Your task to perform on an android device: Open Yahoo.com Image 0: 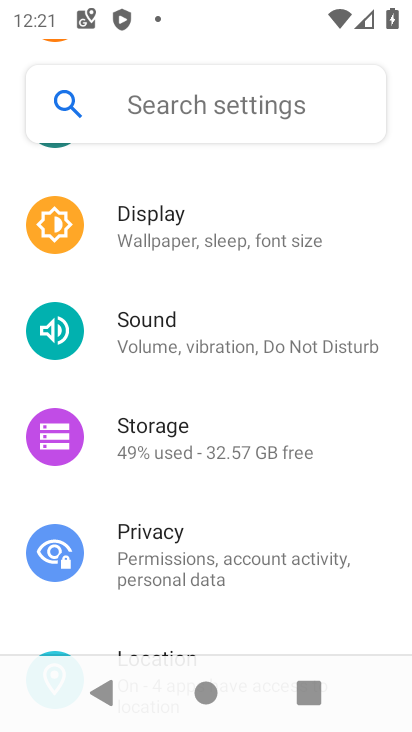
Step 0: press home button
Your task to perform on an android device: Open Yahoo.com Image 1: 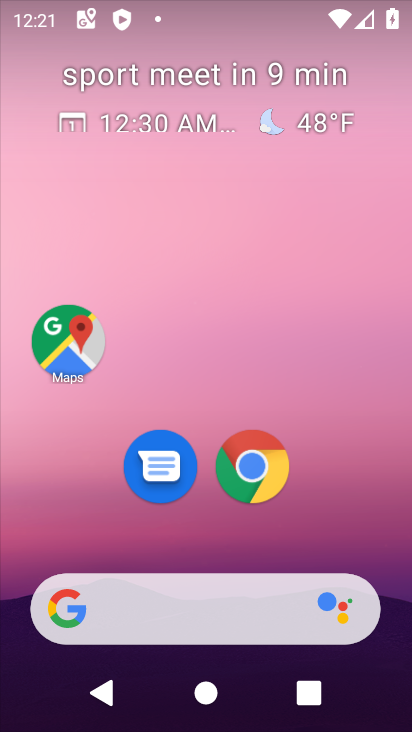
Step 1: click (256, 465)
Your task to perform on an android device: Open Yahoo.com Image 2: 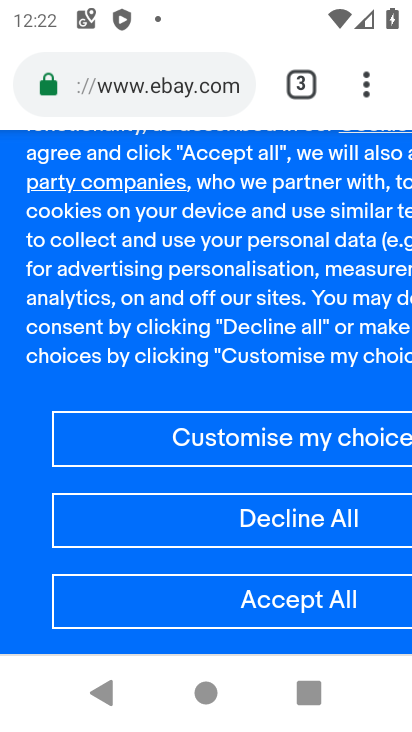
Step 2: click (212, 80)
Your task to perform on an android device: Open Yahoo.com Image 3: 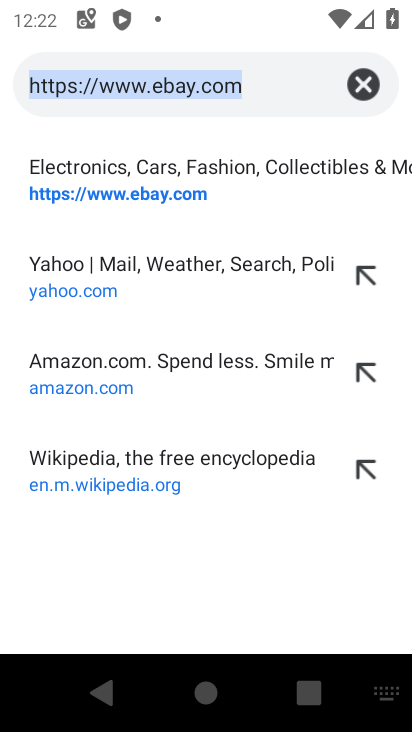
Step 3: click (359, 90)
Your task to perform on an android device: Open Yahoo.com Image 4: 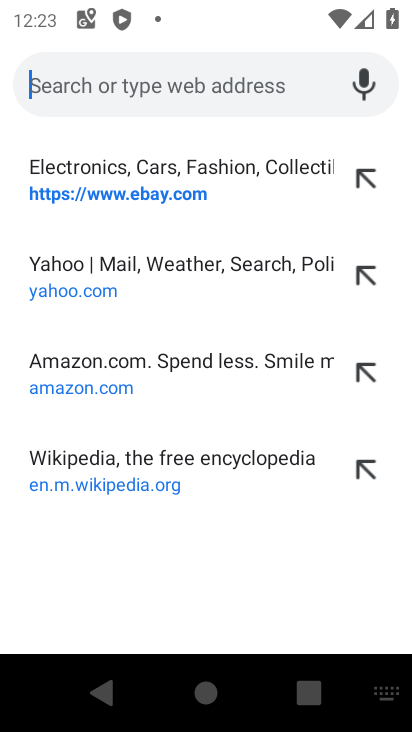
Step 4: type "yahoo.com"
Your task to perform on an android device: Open Yahoo.com Image 5: 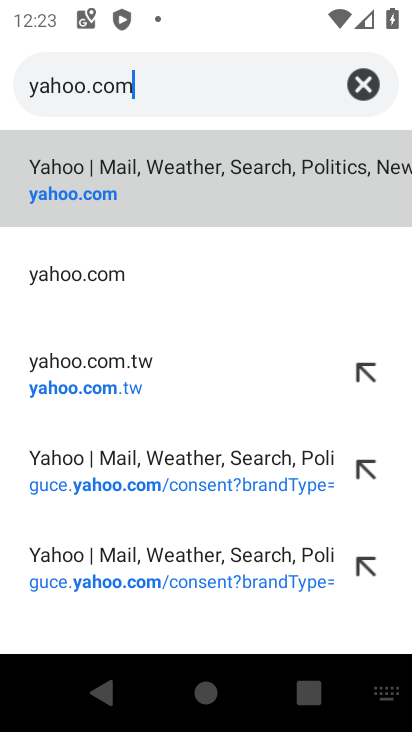
Step 5: click (125, 169)
Your task to perform on an android device: Open Yahoo.com Image 6: 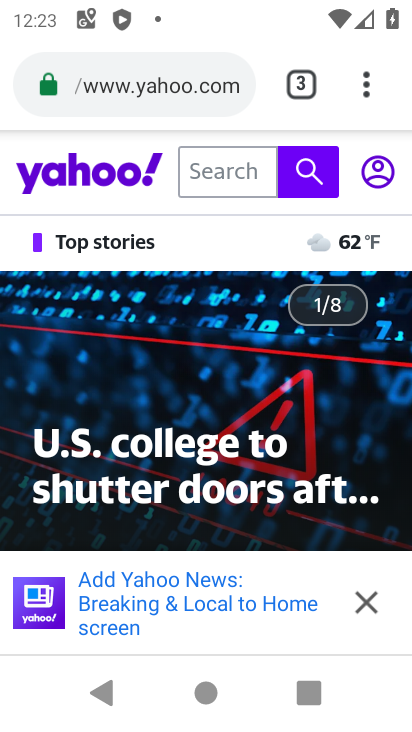
Step 6: task complete